Your task to perform on an android device: change alarm snooze length Image 0: 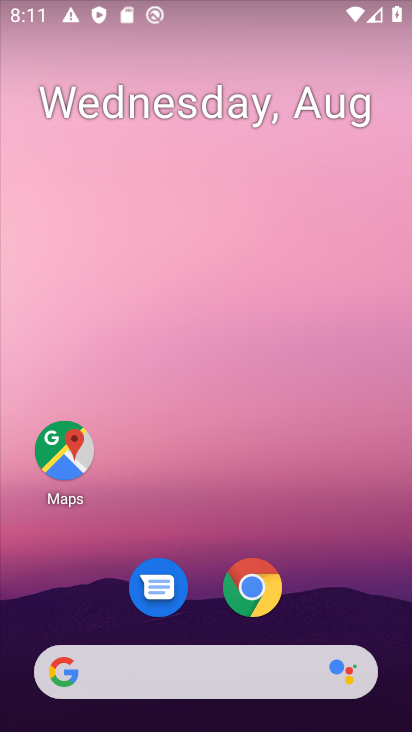
Step 0: drag from (249, 638) to (220, 318)
Your task to perform on an android device: change alarm snooze length Image 1: 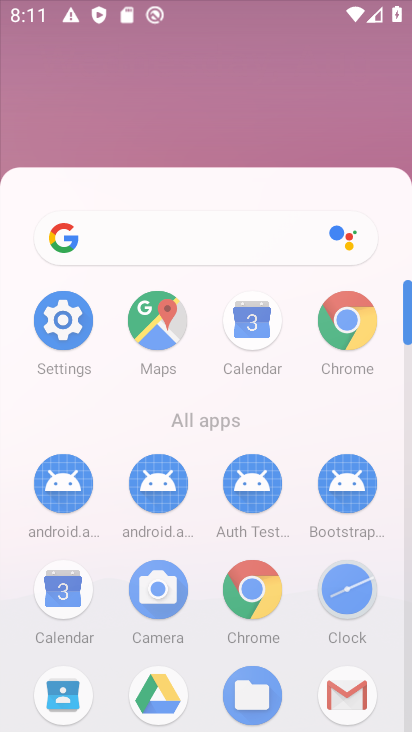
Step 1: drag from (303, 561) to (250, 399)
Your task to perform on an android device: change alarm snooze length Image 2: 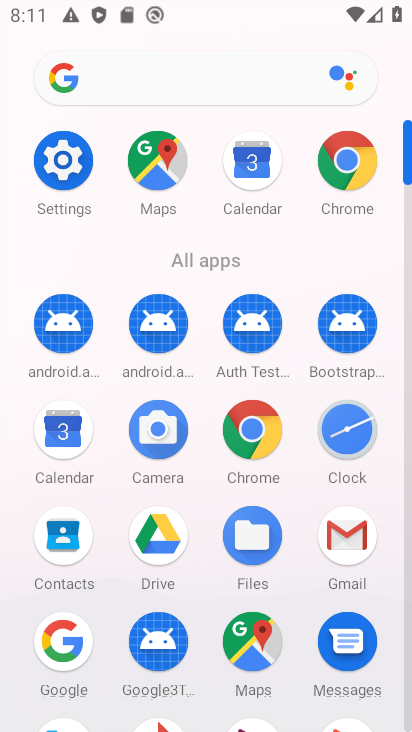
Step 2: click (351, 443)
Your task to perform on an android device: change alarm snooze length Image 3: 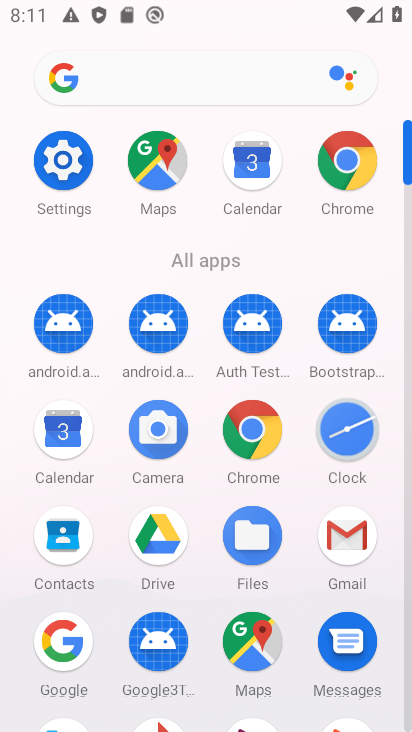
Step 3: click (351, 443)
Your task to perform on an android device: change alarm snooze length Image 4: 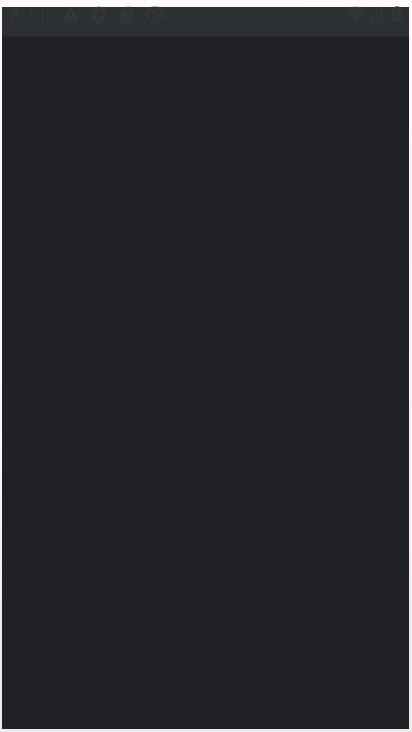
Step 4: click (351, 442)
Your task to perform on an android device: change alarm snooze length Image 5: 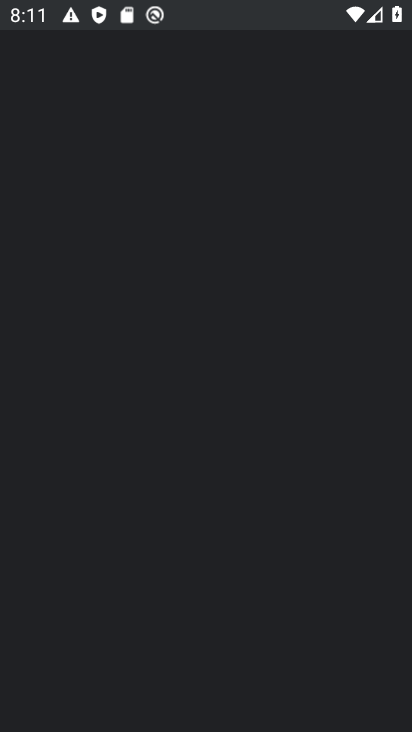
Step 5: click (351, 442)
Your task to perform on an android device: change alarm snooze length Image 6: 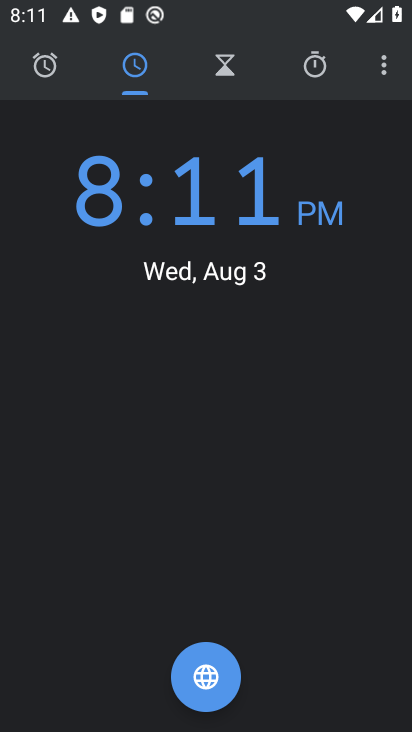
Step 6: press back button
Your task to perform on an android device: change alarm snooze length Image 7: 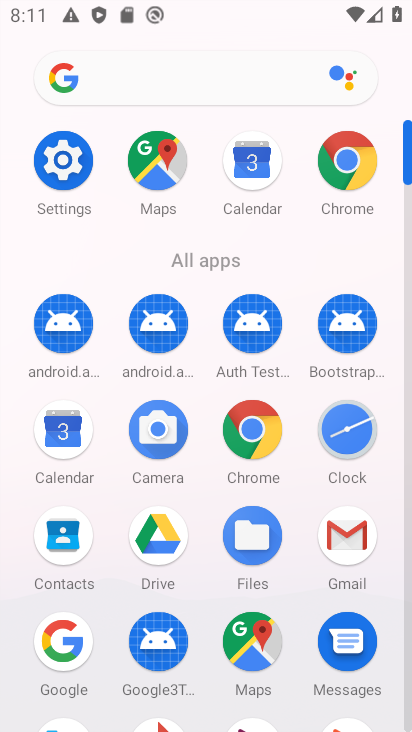
Step 7: drag from (230, 589) to (161, 133)
Your task to perform on an android device: change alarm snooze length Image 8: 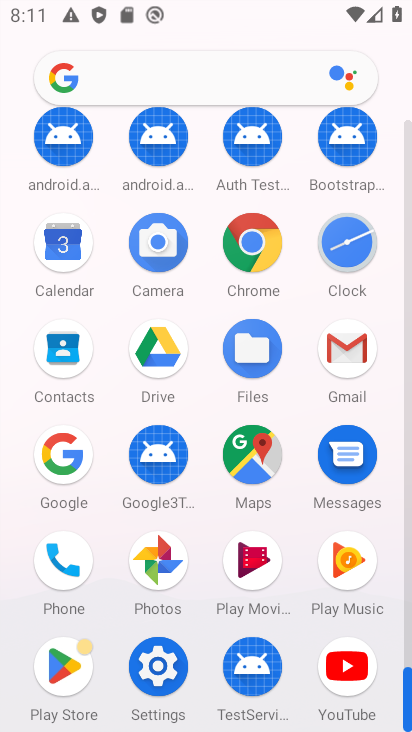
Step 8: click (347, 251)
Your task to perform on an android device: change alarm snooze length Image 9: 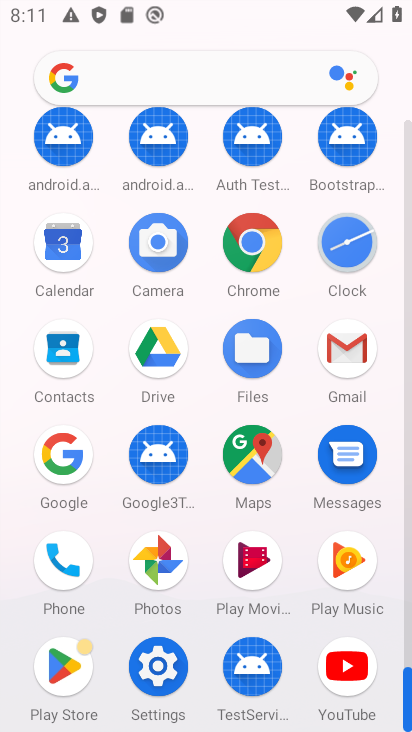
Step 9: click (346, 245)
Your task to perform on an android device: change alarm snooze length Image 10: 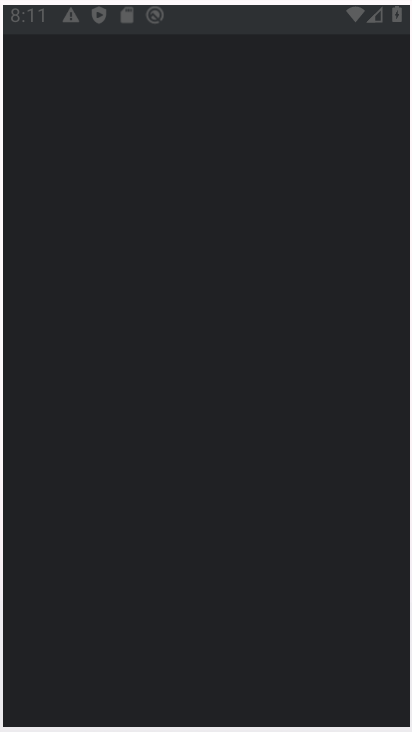
Step 10: click (346, 245)
Your task to perform on an android device: change alarm snooze length Image 11: 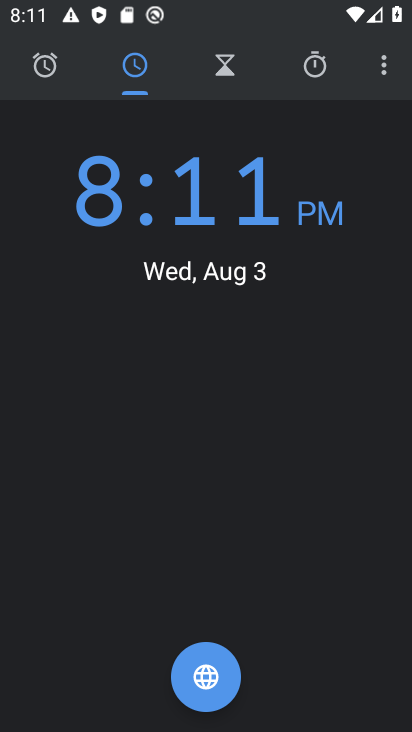
Step 11: click (384, 66)
Your task to perform on an android device: change alarm snooze length Image 12: 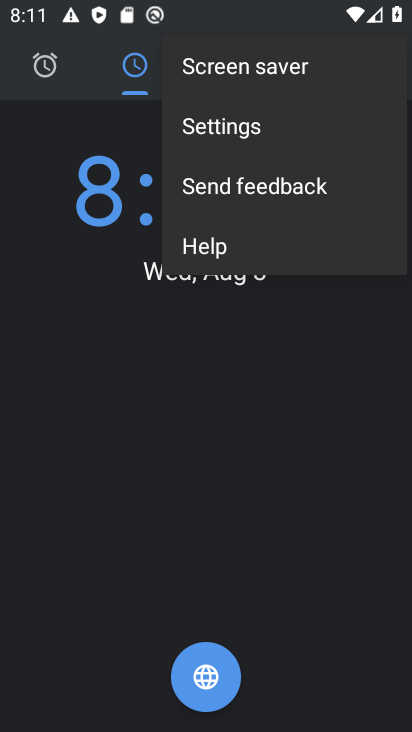
Step 12: click (218, 132)
Your task to perform on an android device: change alarm snooze length Image 13: 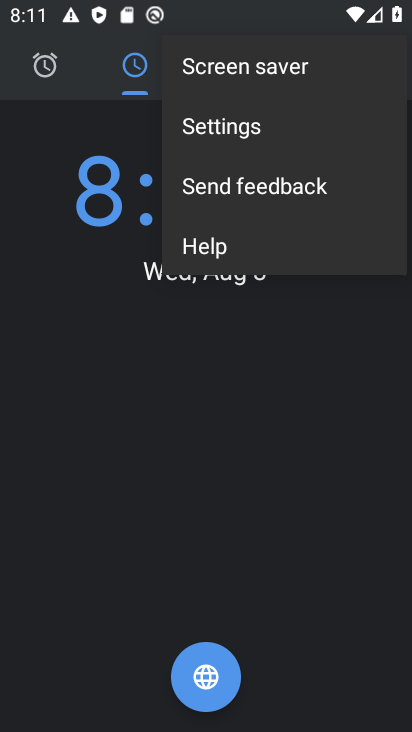
Step 13: click (218, 132)
Your task to perform on an android device: change alarm snooze length Image 14: 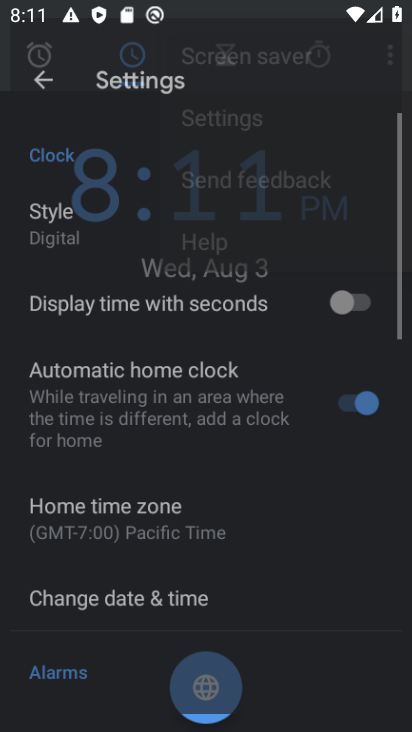
Step 14: click (218, 132)
Your task to perform on an android device: change alarm snooze length Image 15: 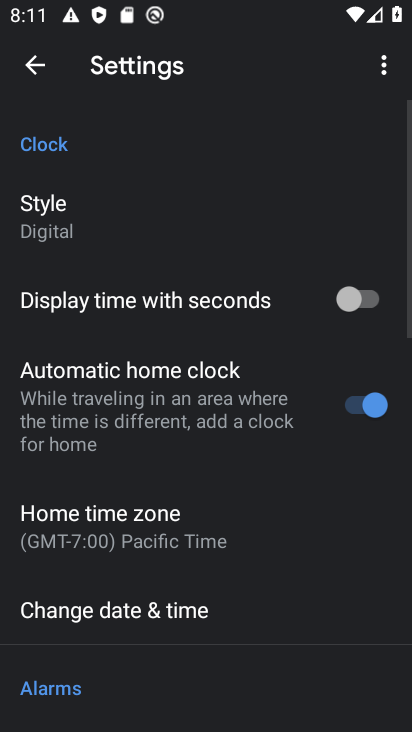
Step 15: click (94, 212)
Your task to perform on an android device: change alarm snooze length Image 16: 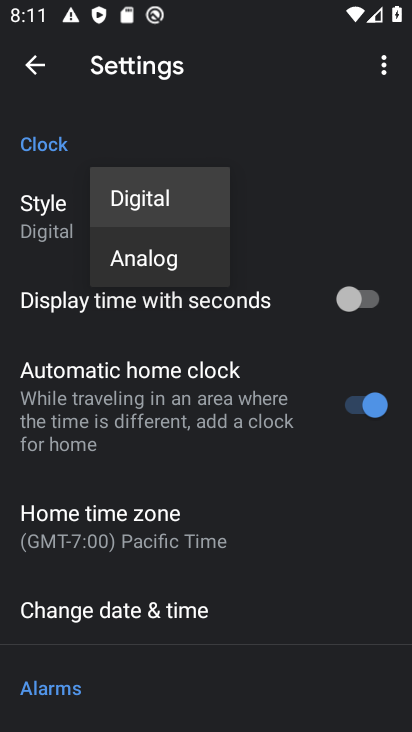
Step 16: click (284, 153)
Your task to perform on an android device: change alarm snooze length Image 17: 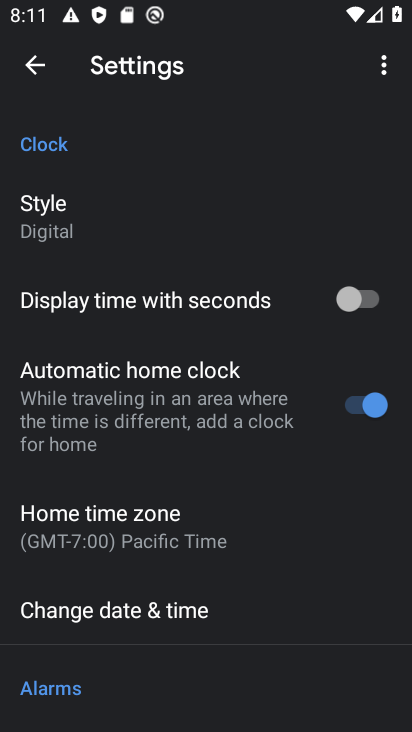
Step 17: drag from (225, 597) to (209, 339)
Your task to perform on an android device: change alarm snooze length Image 18: 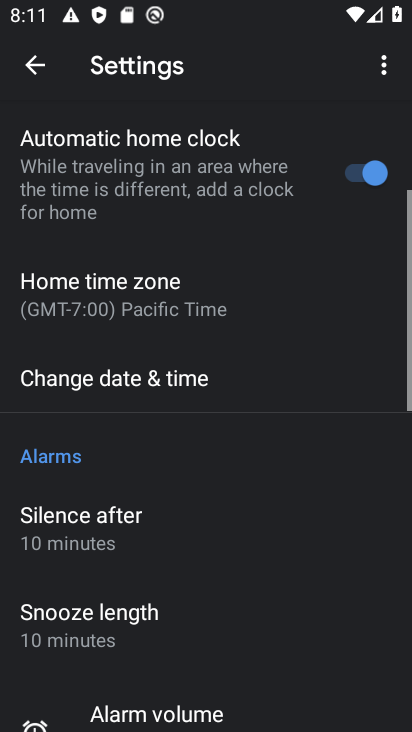
Step 18: drag from (235, 573) to (148, 182)
Your task to perform on an android device: change alarm snooze length Image 19: 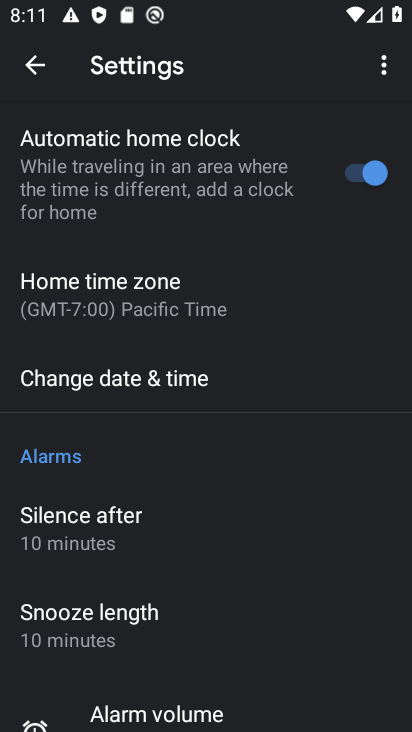
Step 19: drag from (151, 467) to (98, 234)
Your task to perform on an android device: change alarm snooze length Image 20: 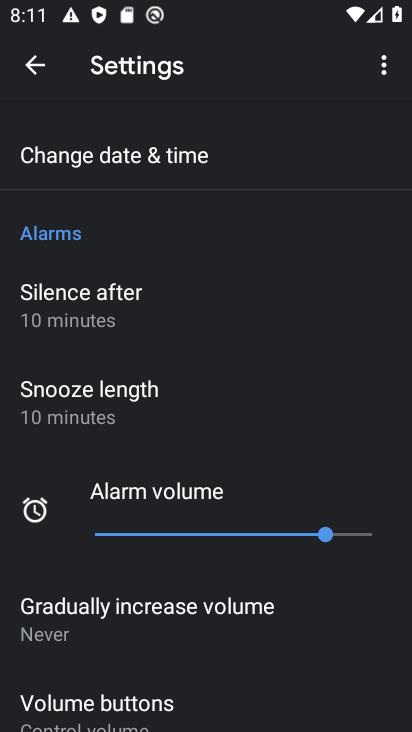
Step 20: click (72, 399)
Your task to perform on an android device: change alarm snooze length Image 21: 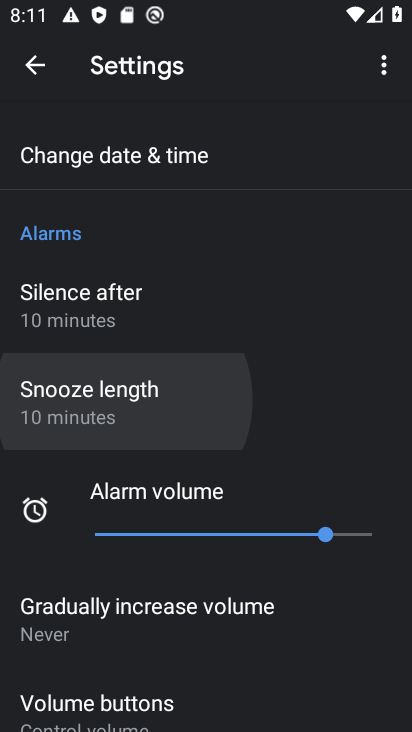
Step 21: click (72, 399)
Your task to perform on an android device: change alarm snooze length Image 22: 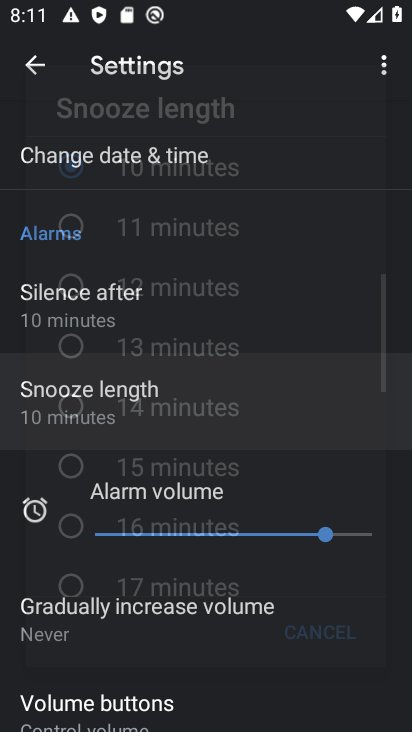
Step 22: click (72, 399)
Your task to perform on an android device: change alarm snooze length Image 23: 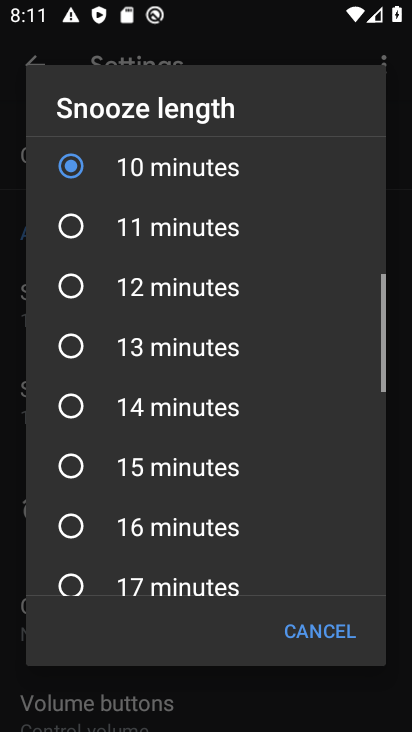
Step 23: click (73, 400)
Your task to perform on an android device: change alarm snooze length Image 24: 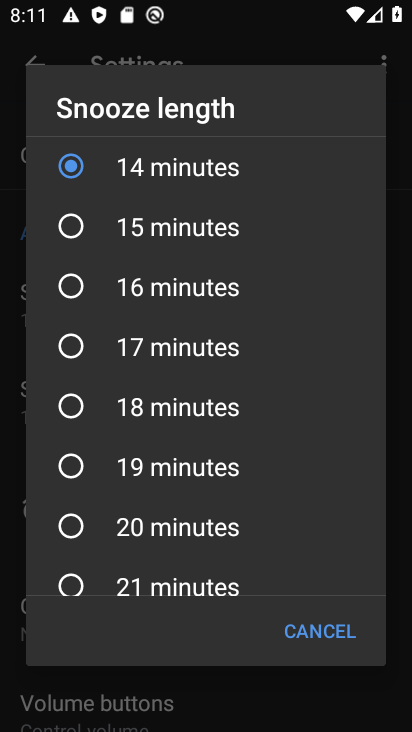
Step 24: click (73, 345)
Your task to perform on an android device: change alarm snooze length Image 25: 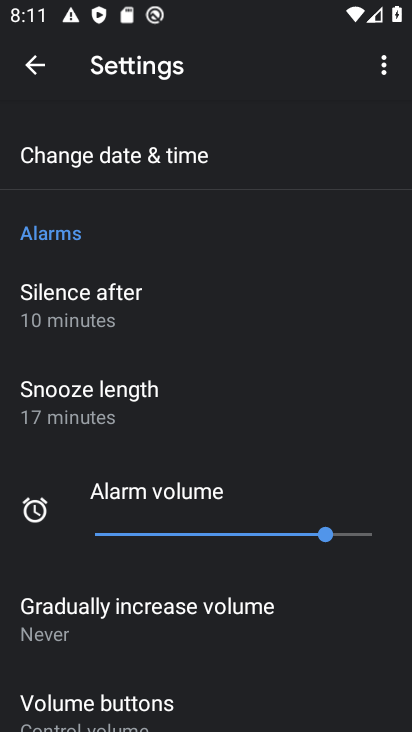
Step 25: task complete